Your task to perform on an android device: turn notification dots off Image 0: 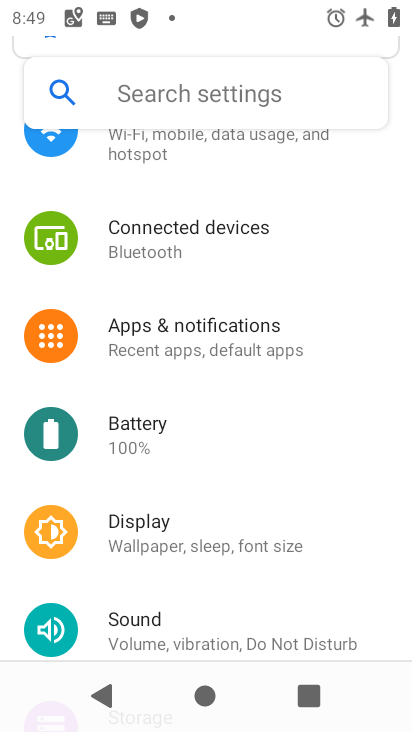
Step 0: click (224, 340)
Your task to perform on an android device: turn notification dots off Image 1: 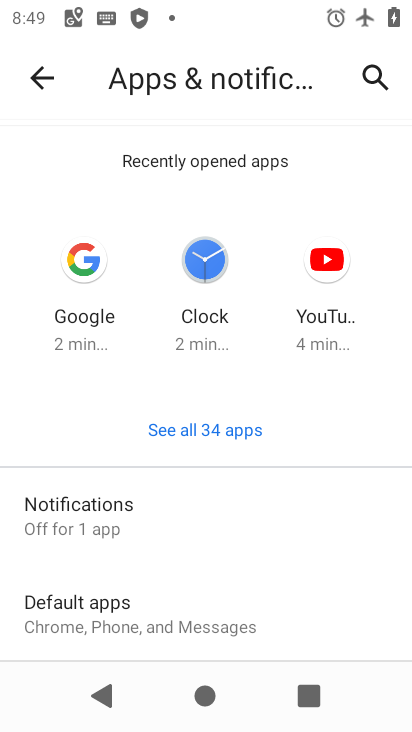
Step 1: click (140, 521)
Your task to perform on an android device: turn notification dots off Image 2: 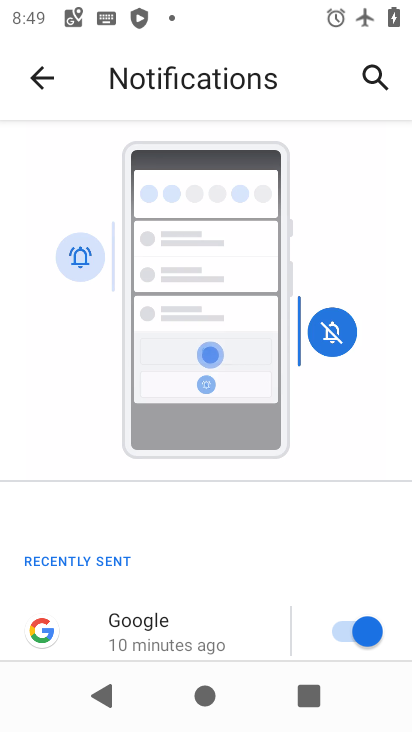
Step 2: drag from (228, 450) to (259, 48)
Your task to perform on an android device: turn notification dots off Image 3: 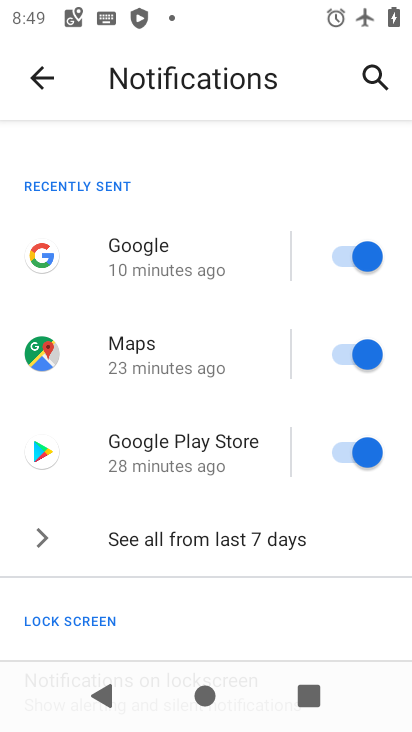
Step 3: drag from (206, 611) to (243, 127)
Your task to perform on an android device: turn notification dots off Image 4: 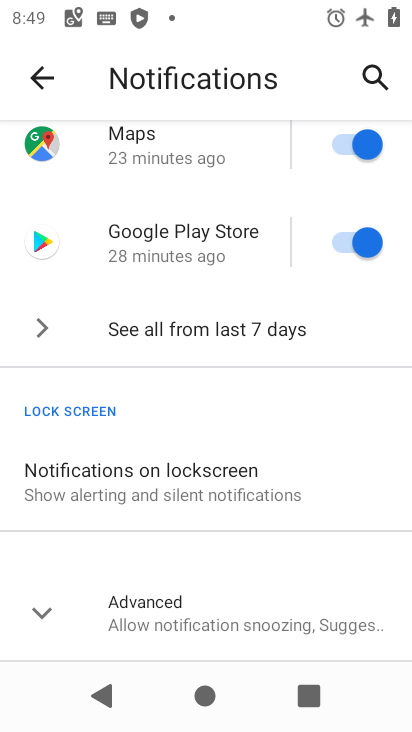
Step 4: click (40, 608)
Your task to perform on an android device: turn notification dots off Image 5: 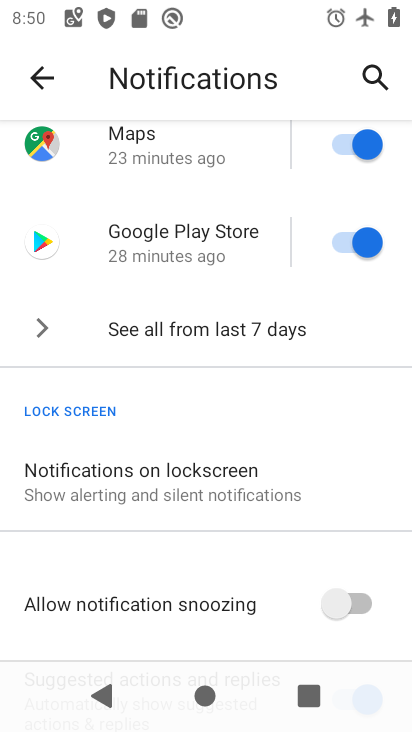
Step 5: task complete